Your task to perform on an android device: open app "Yahoo Mail" (install if not already installed), go to login, and select forgot password Image 0: 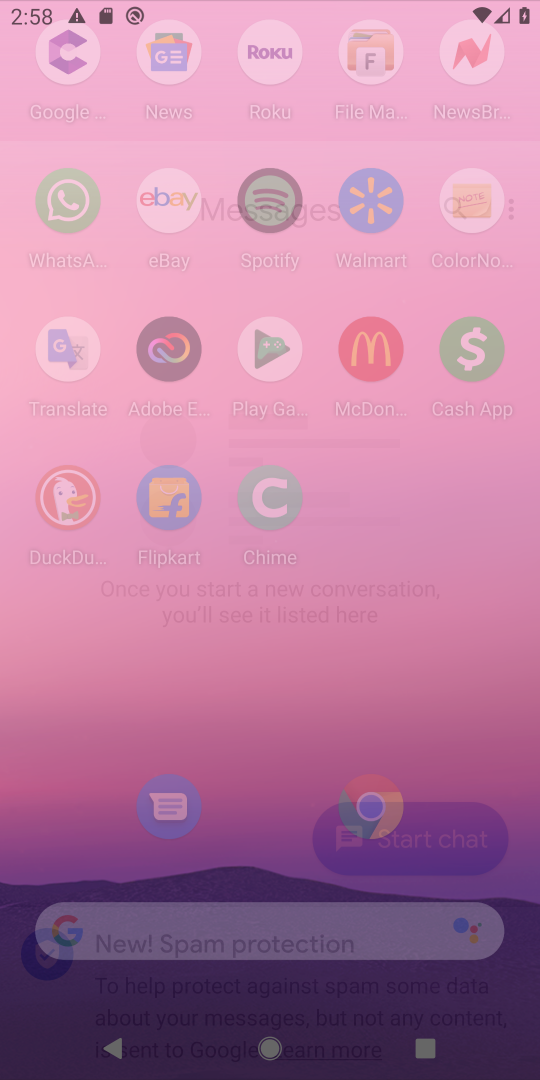
Step 0: press home button
Your task to perform on an android device: open app "Yahoo Mail" (install if not already installed), go to login, and select forgot password Image 1: 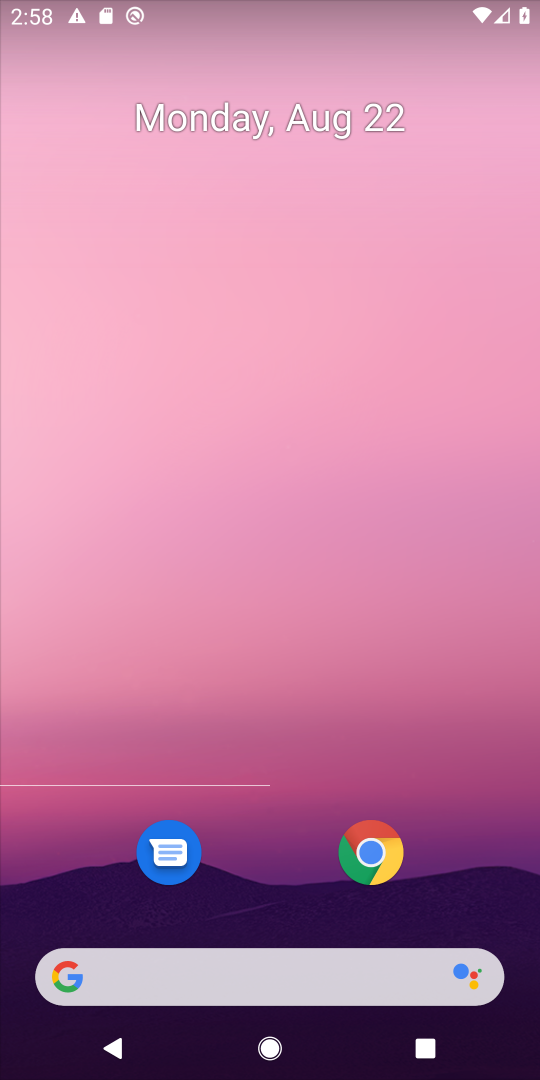
Step 1: press home button
Your task to perform on an android device: open app "Yahoo Mail" (install if not already installed), go to login, and select forgot password Image 2: 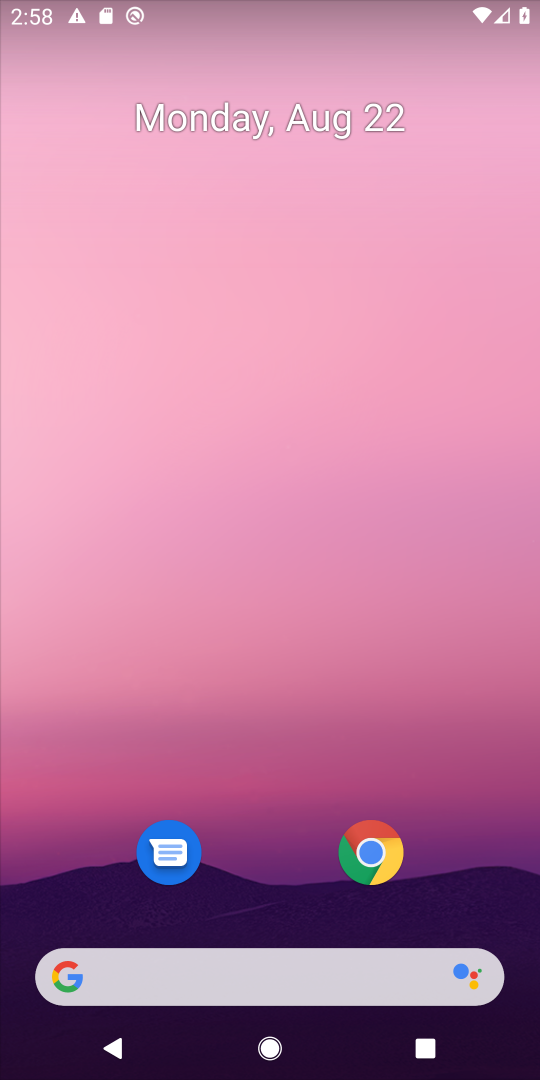
Step 2: drag from (266, 884) to (259, 56)
Your task to perform on an android device: open app "Yahoo Mail" (install if not already installed), go to login, and select forgot password Image 3: 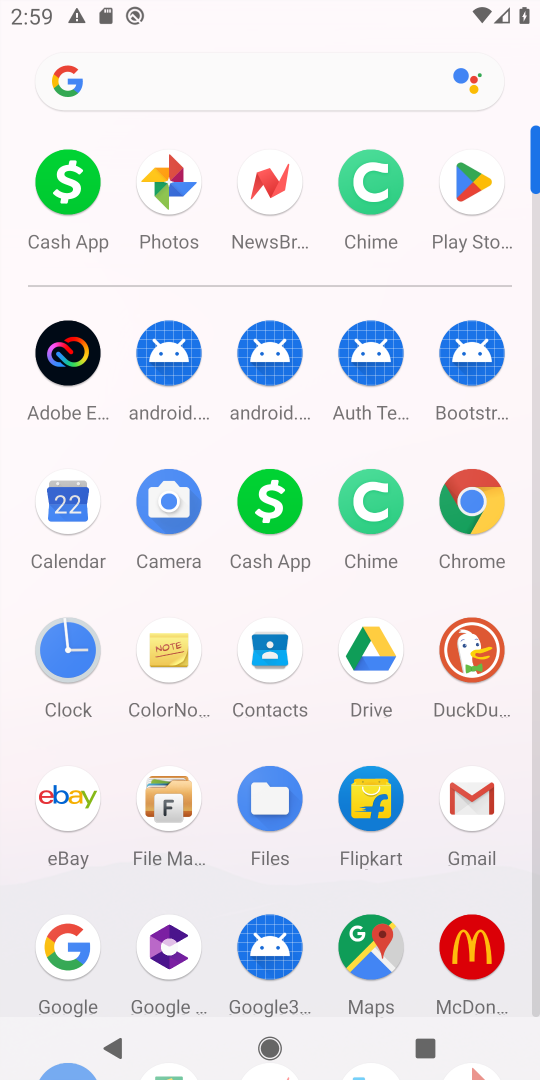
Step 3: click (467, 184)
Your task to perform on an android device: open app "Yahoo Mail" (install if not already installed), go to login, and select forgot password Image 4: 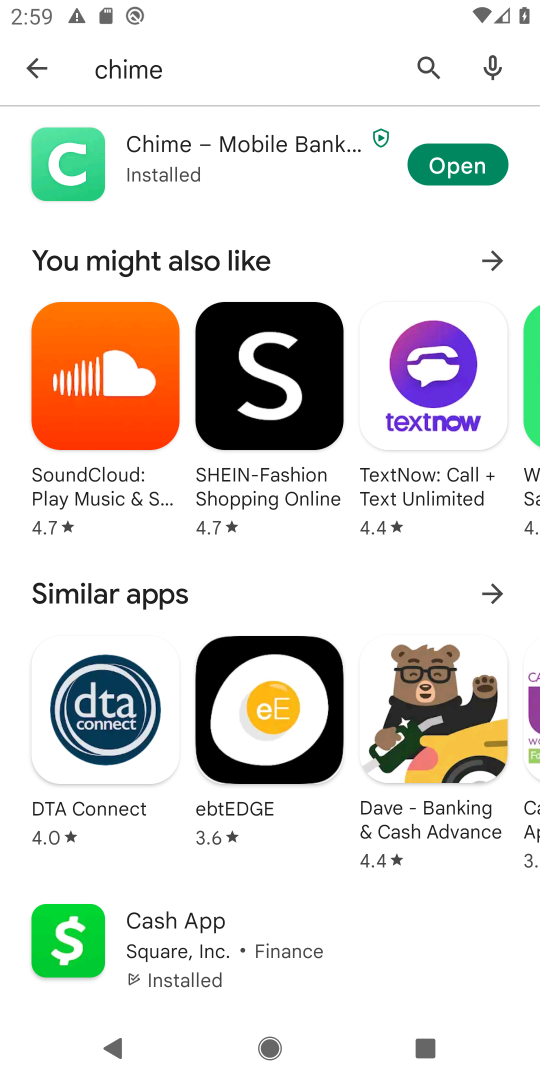
Step 4: click (426, 55)
Your task to perform on an android device: open app "Yahoo Mail" (install if not already installed), go to login, and select forgot password Image 5: 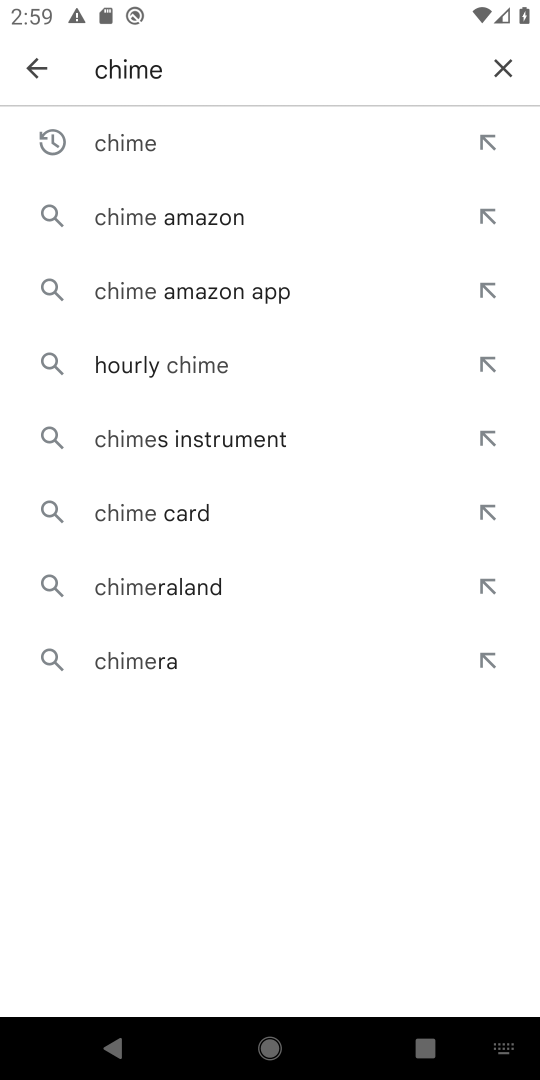
Step 5: click (502, 61)
Your task to perform on an android device: open app "Yahoo Mail" (install if not already installed), go to login, and select forgot password Image 6: 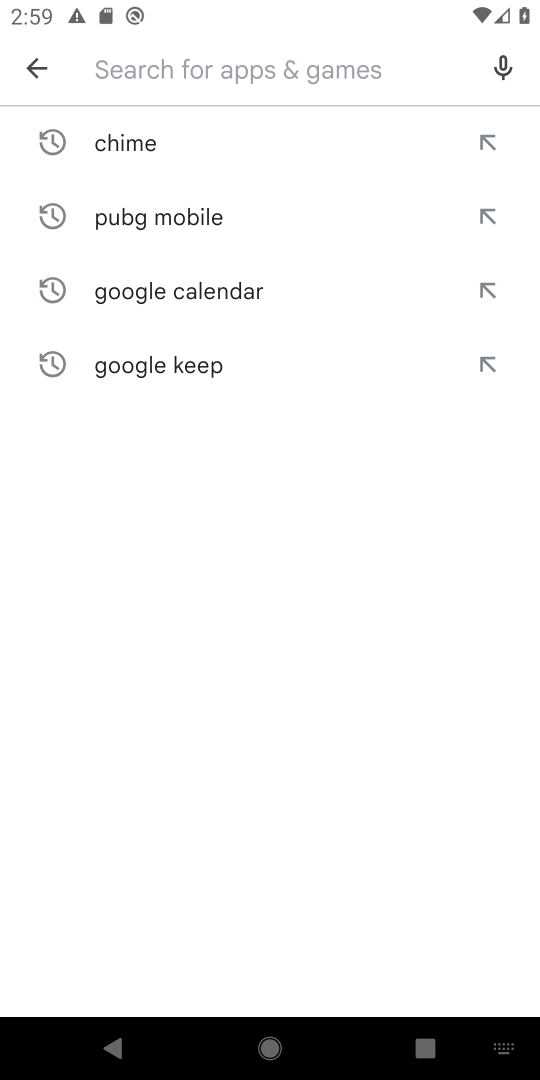
Step 6: type "Yahoo Mail"
Your task to perform on an android device: open app "Yahoo Mail" (install if not already installed), go to login, and select forgot password Image 7: 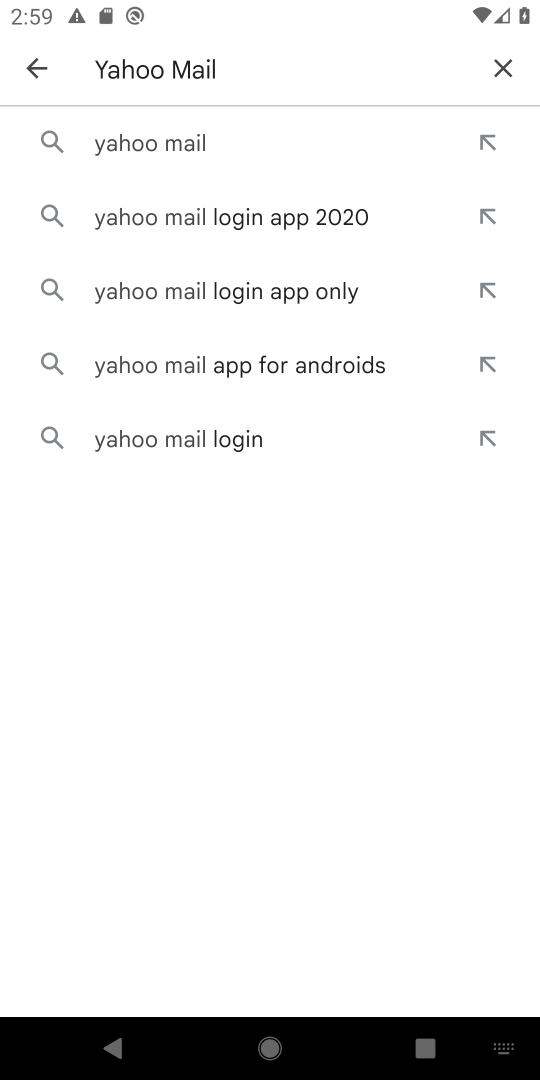
Step 7: click (163, 143)
Your task to perform on an android device: open app "Yahoo Mail" (install if not already installed), go to login, and select forgot password Image 8: 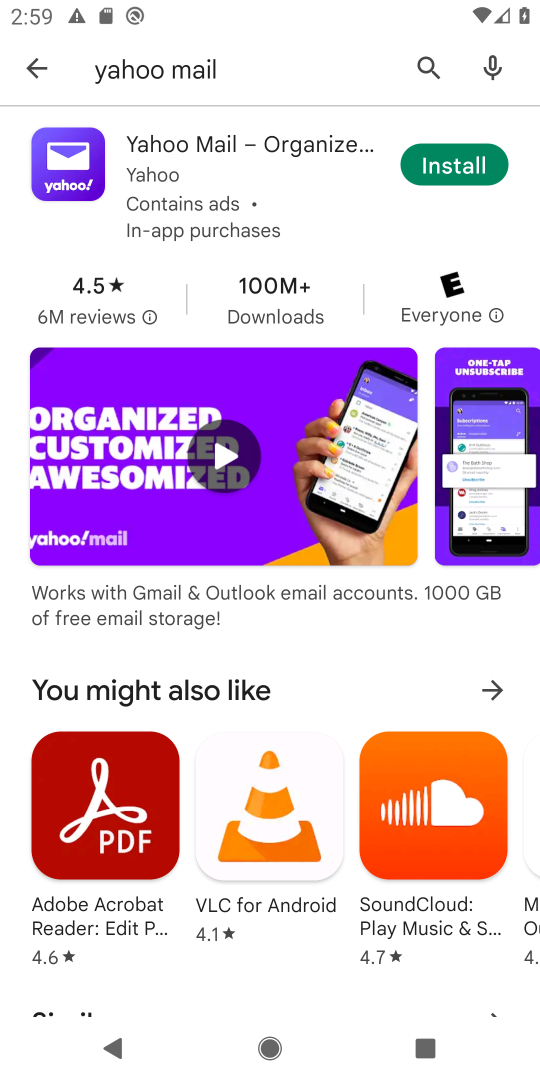
Step 8: click (459, 163)
Your task to perform on an android device: open app "Yahoo Mail" (install if not already installed), go to login, and select forgot password Image 9: 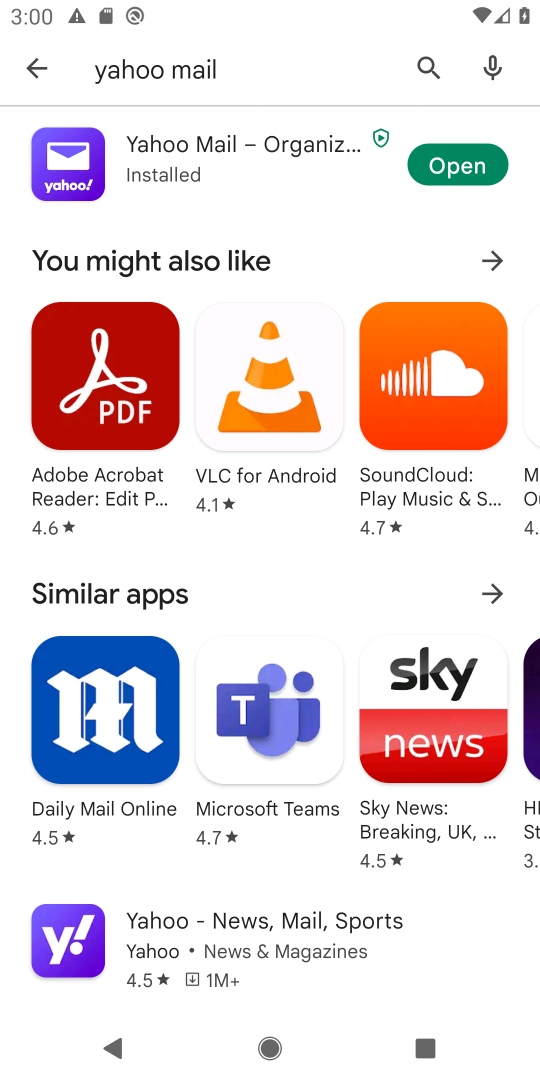
Step 9: task complete